Your task to perform on an android device: open app "DuckDuckGo Privacy Browser" (install if not already installed) and go to login screen Image 0: 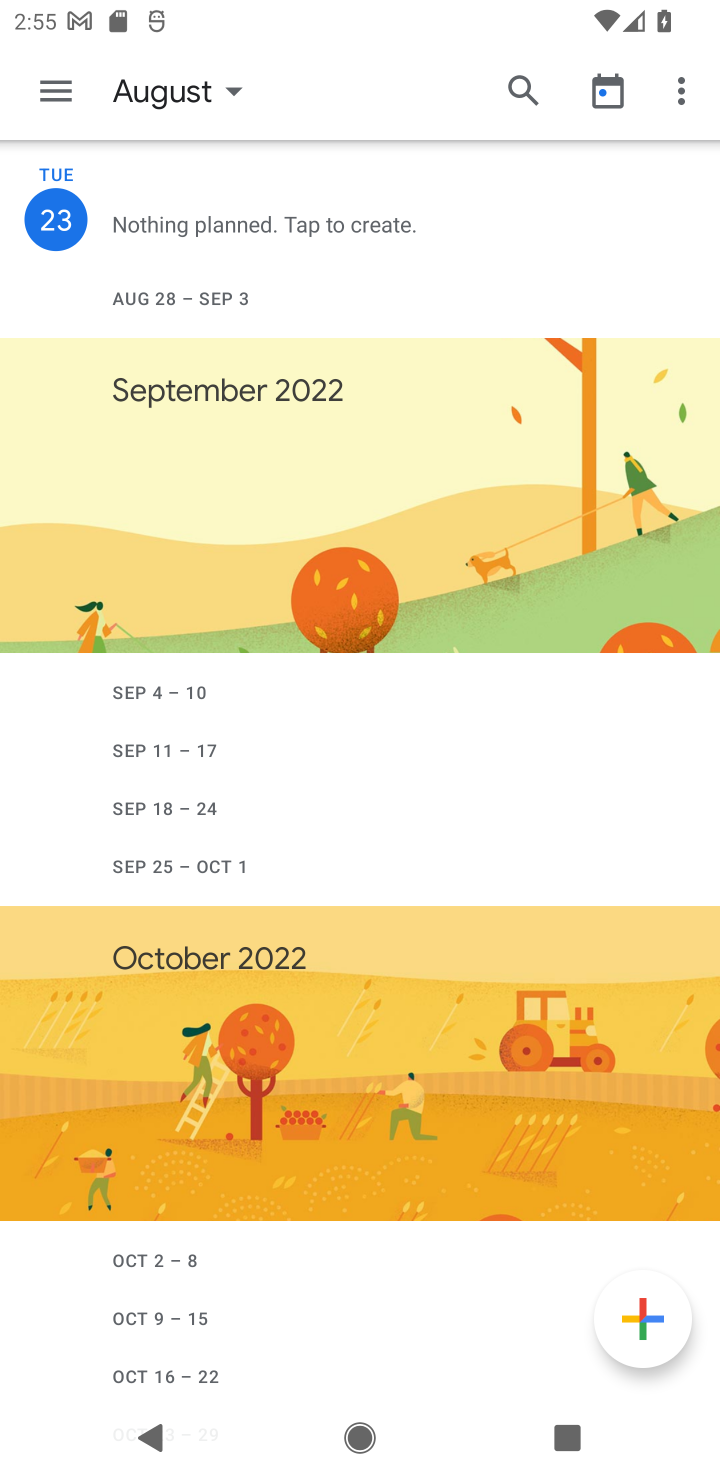
Step 0: press home button
Your task to perform on an android device: open app "DuckDuckGo Privacy Browser" (install if not already installed) and go to login screen Image 1: 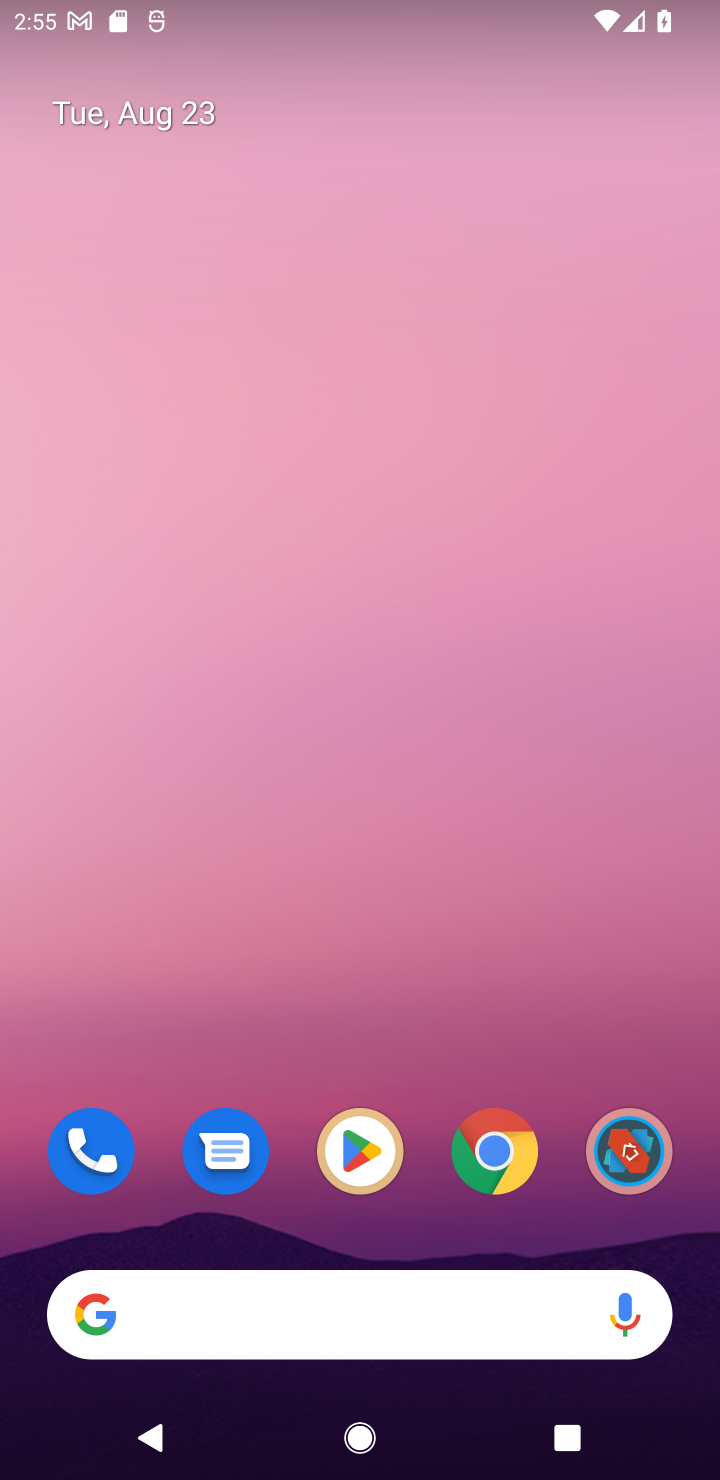
Step 1: click (366, 1147)
Your task to perform on an android device: open app "DuckDuckGo Privacy Browser" (install if not already installed) and go to login screen Image 2: 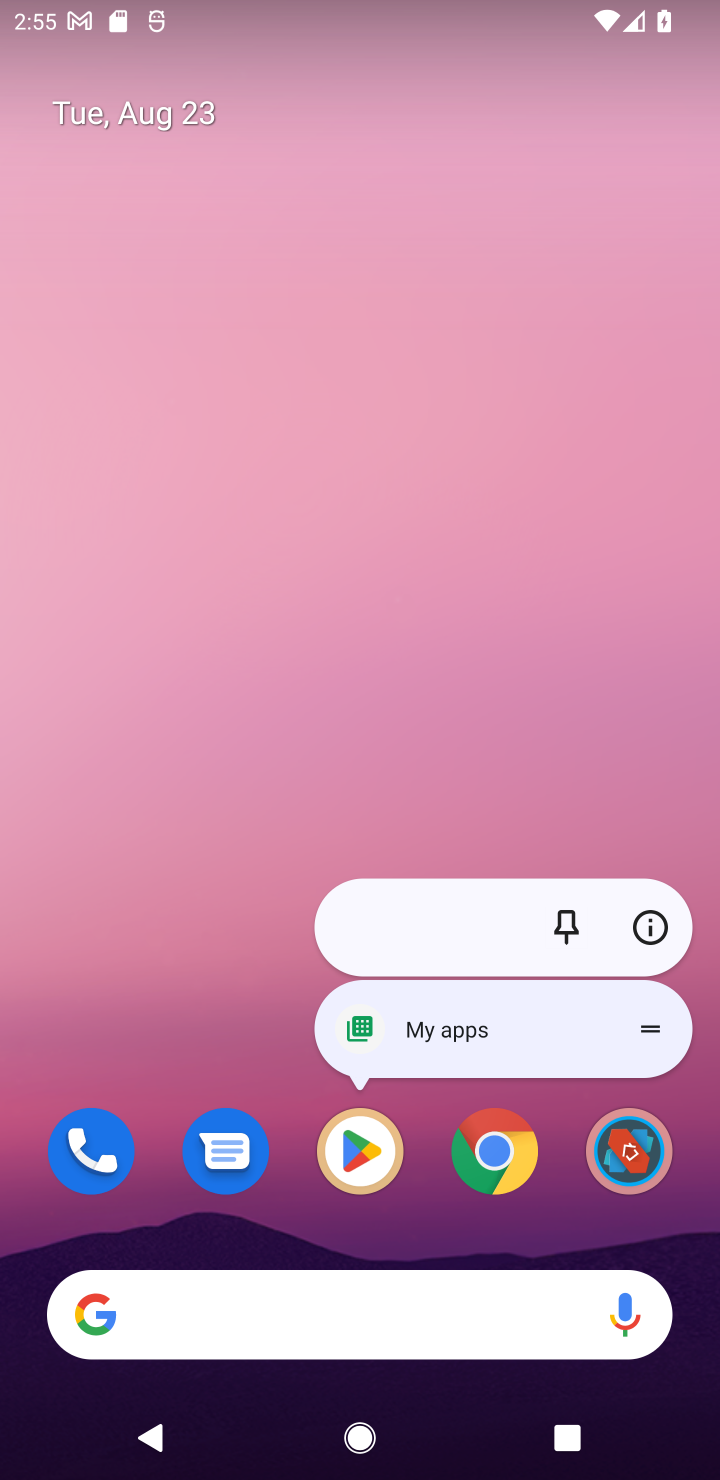
Step 2: click (366, 1152)
Your task to perform on an android device: open app "DuckDuckGo Privacy Browser" (install if not already installed) and go to login screen Image 3: 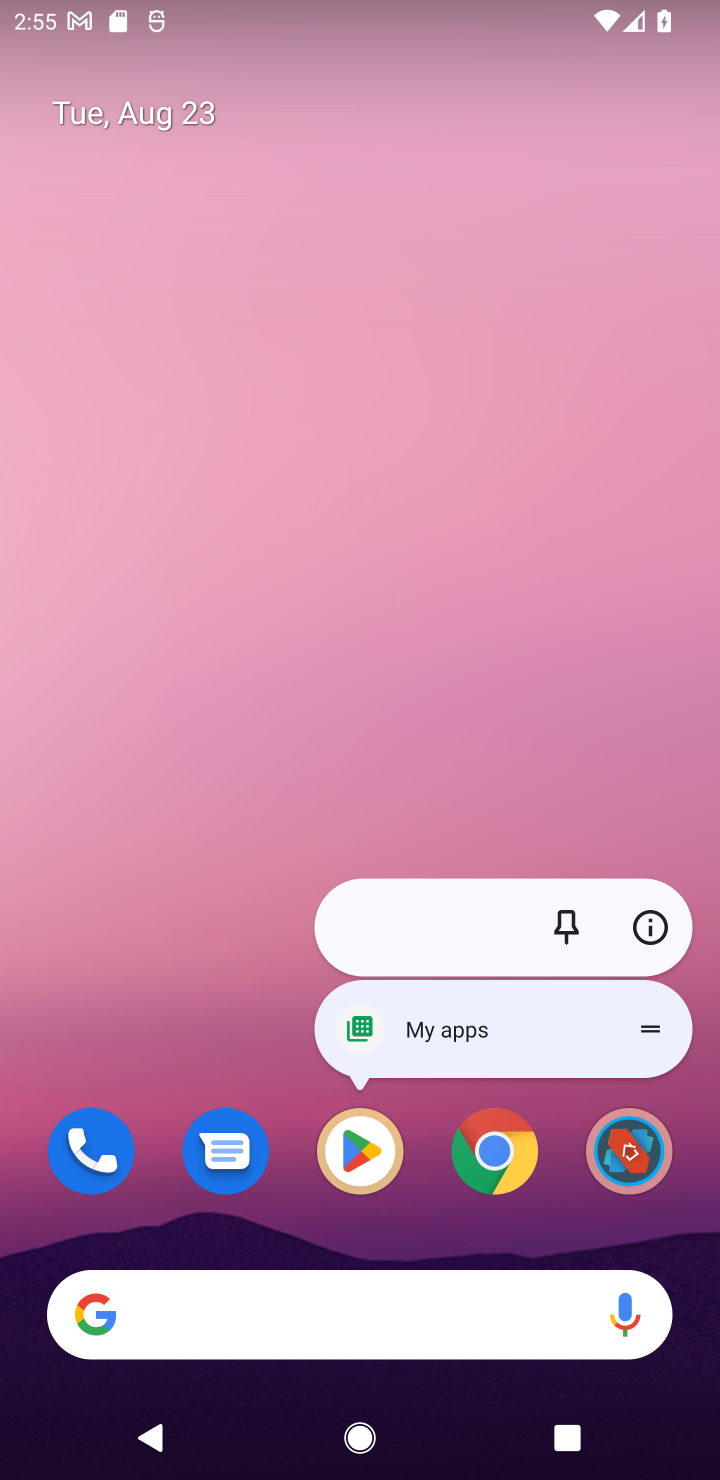
Step 3: click (366, 1152)
Your task to perform on an android device: open app "DuckDuckGo Privacy Browser" (install if not already installed) and go to login screen Image 4: 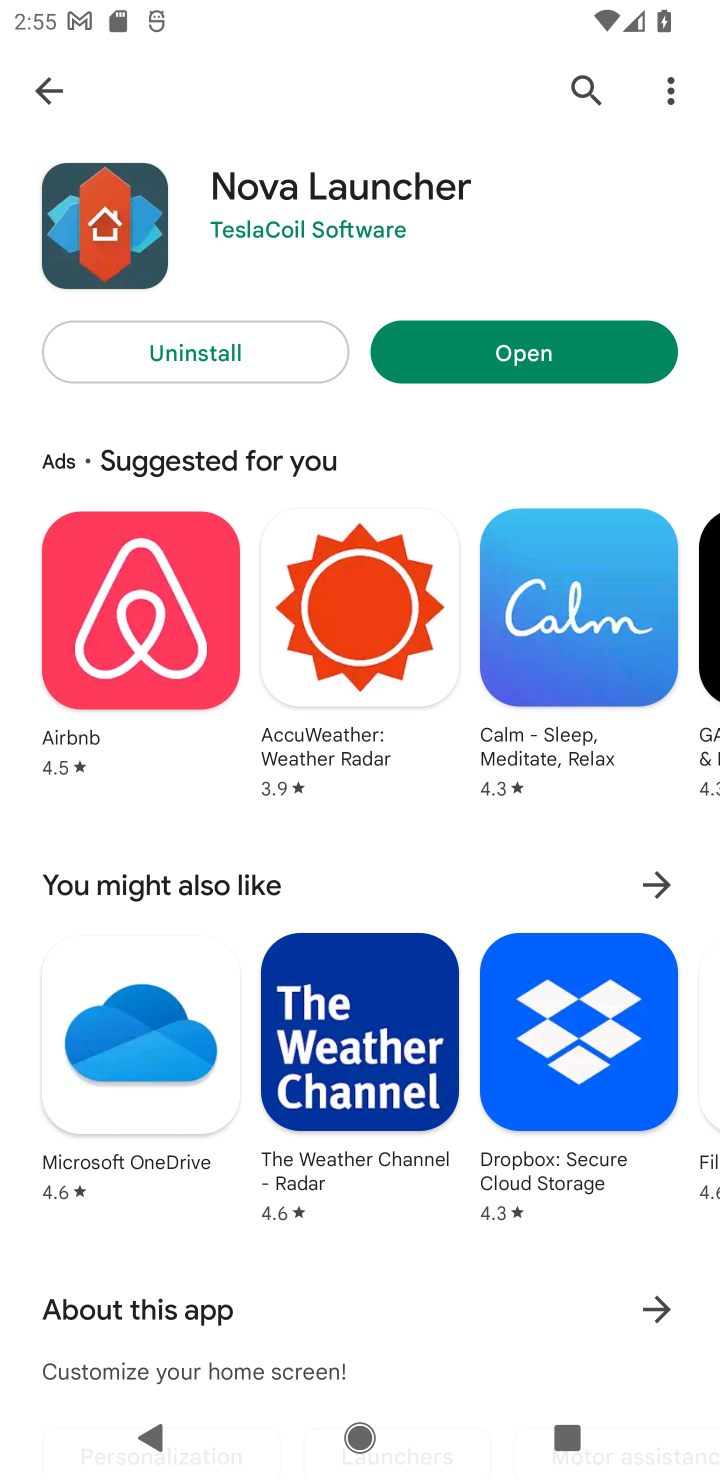
Step 4: click (584, 84)
Your task to perform on an android device: open app "DuckDuckGo Privacy Browser" (install if not already installed) and go to login screen Image 5: 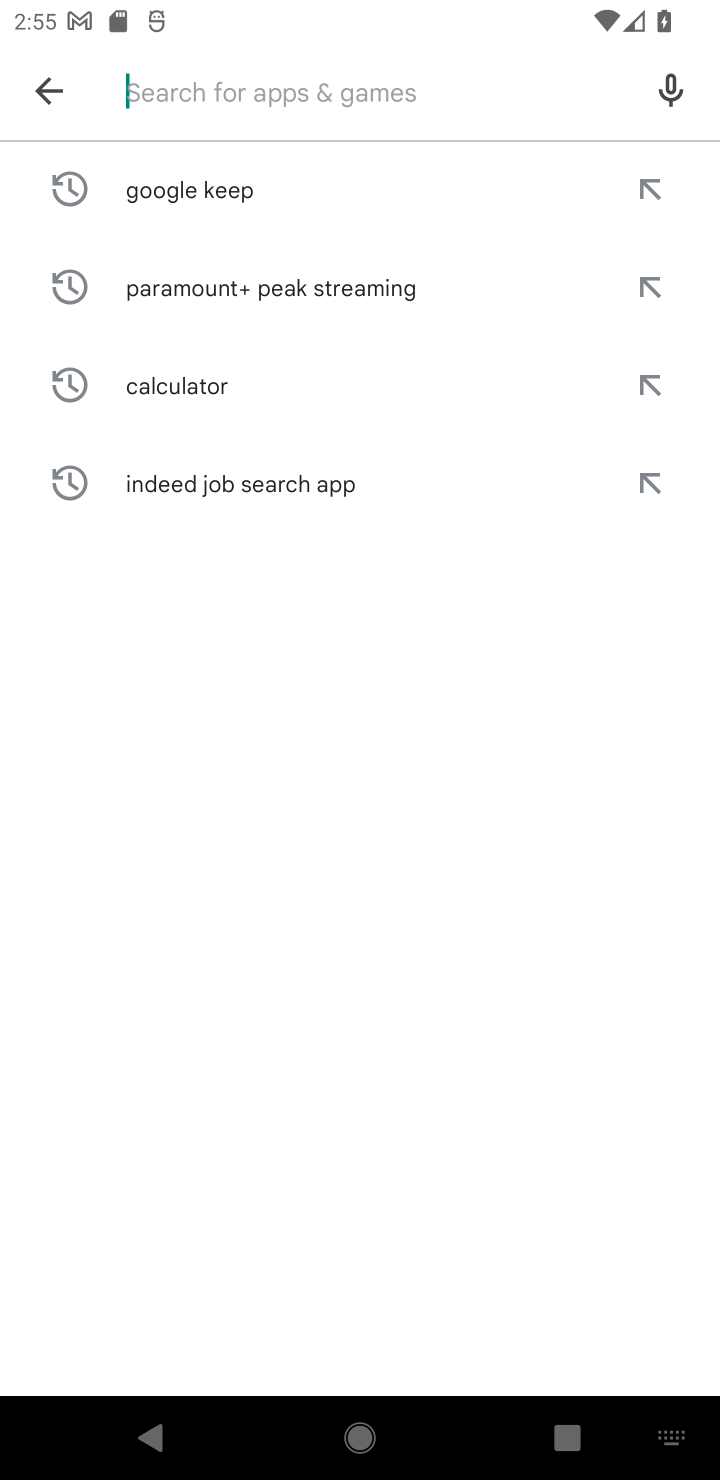
Step 5: type "DuckDuckGo Privacy Browser"
Your task to perform on an android device: open app "DuckDuckGo Privacy Browser" (install if not already installed) and go to login screen Image 6: 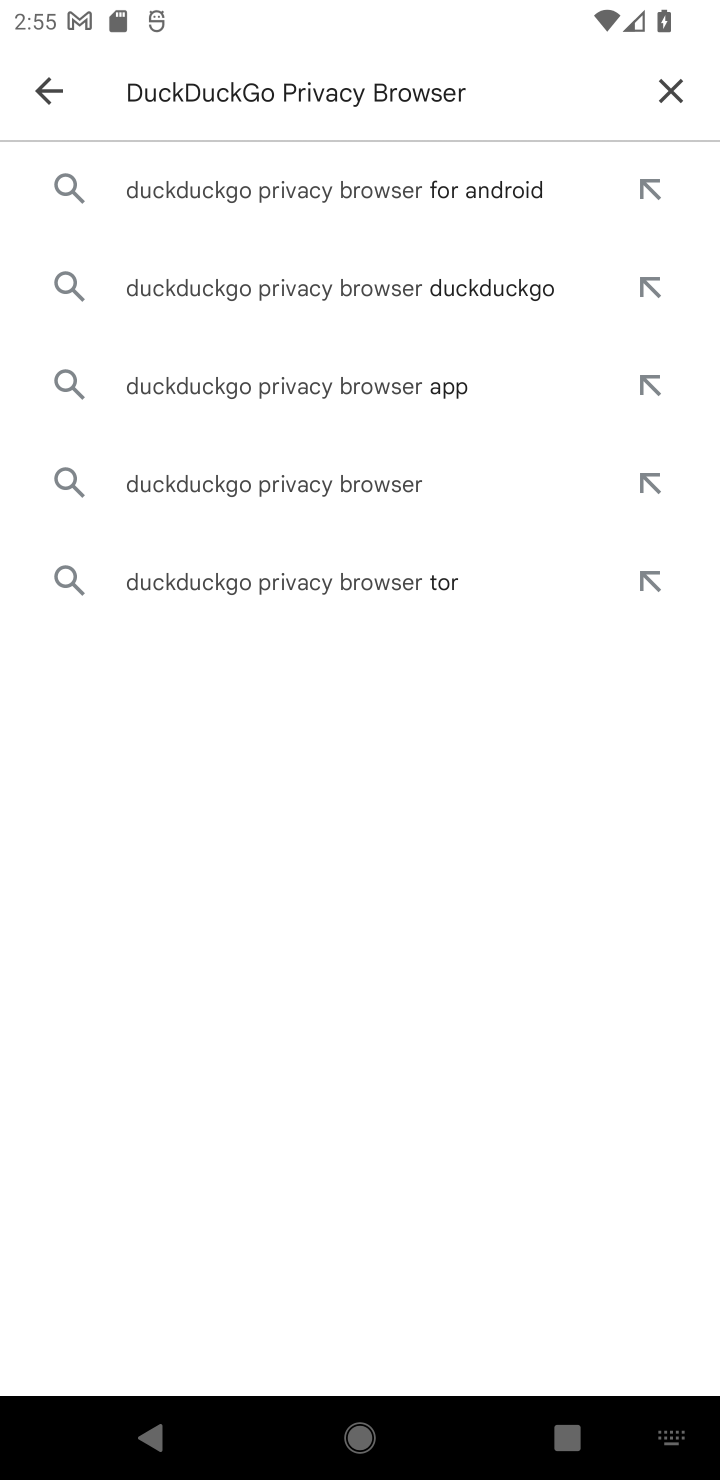
Step 6: click (395, 188)
Your task to perform on an android device: open app "DuckDuckGo Privacy Browser" (install if not already installed) and go to login screen Image 7: 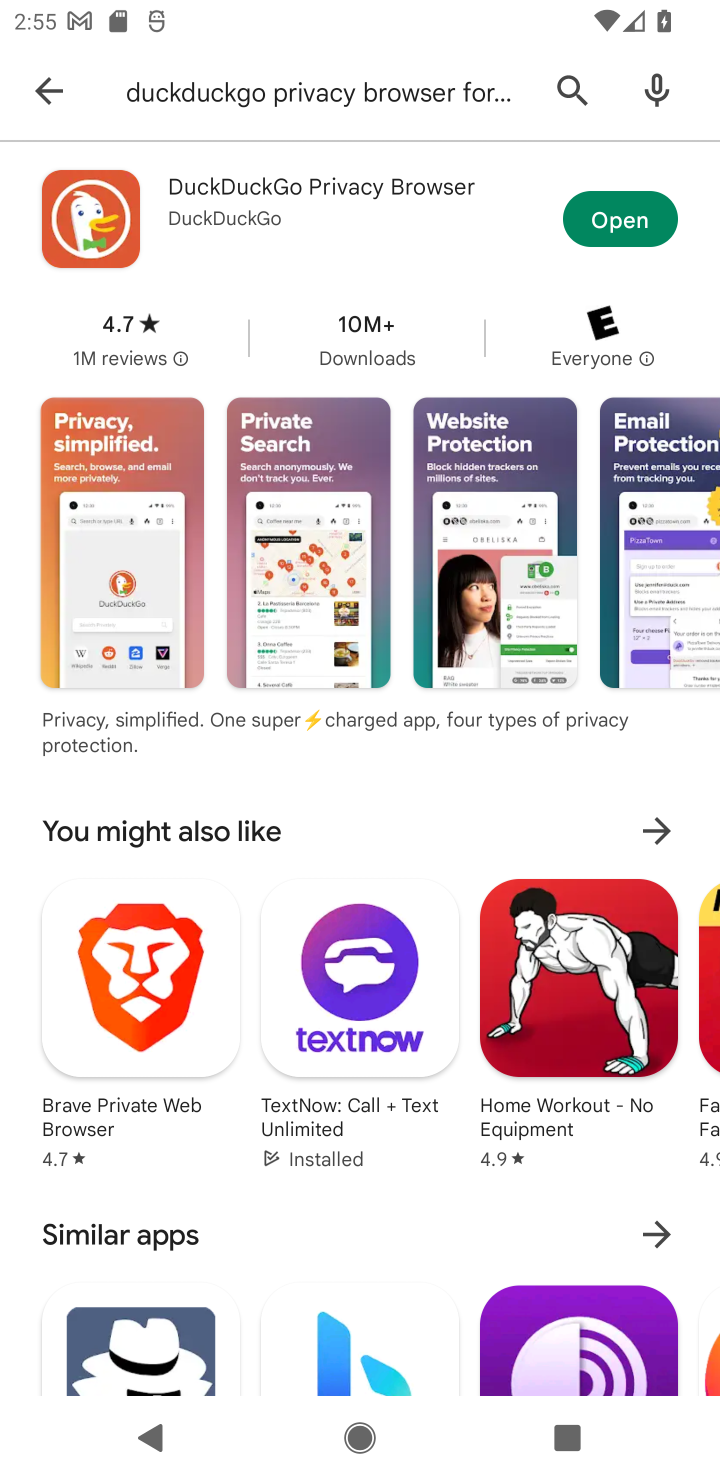
Step 7: click (588, 223)
Your task to perform on an android device: open app "DuckDuckGo Privacy Browser" (install if not already installed) and go to login screen Image 8: 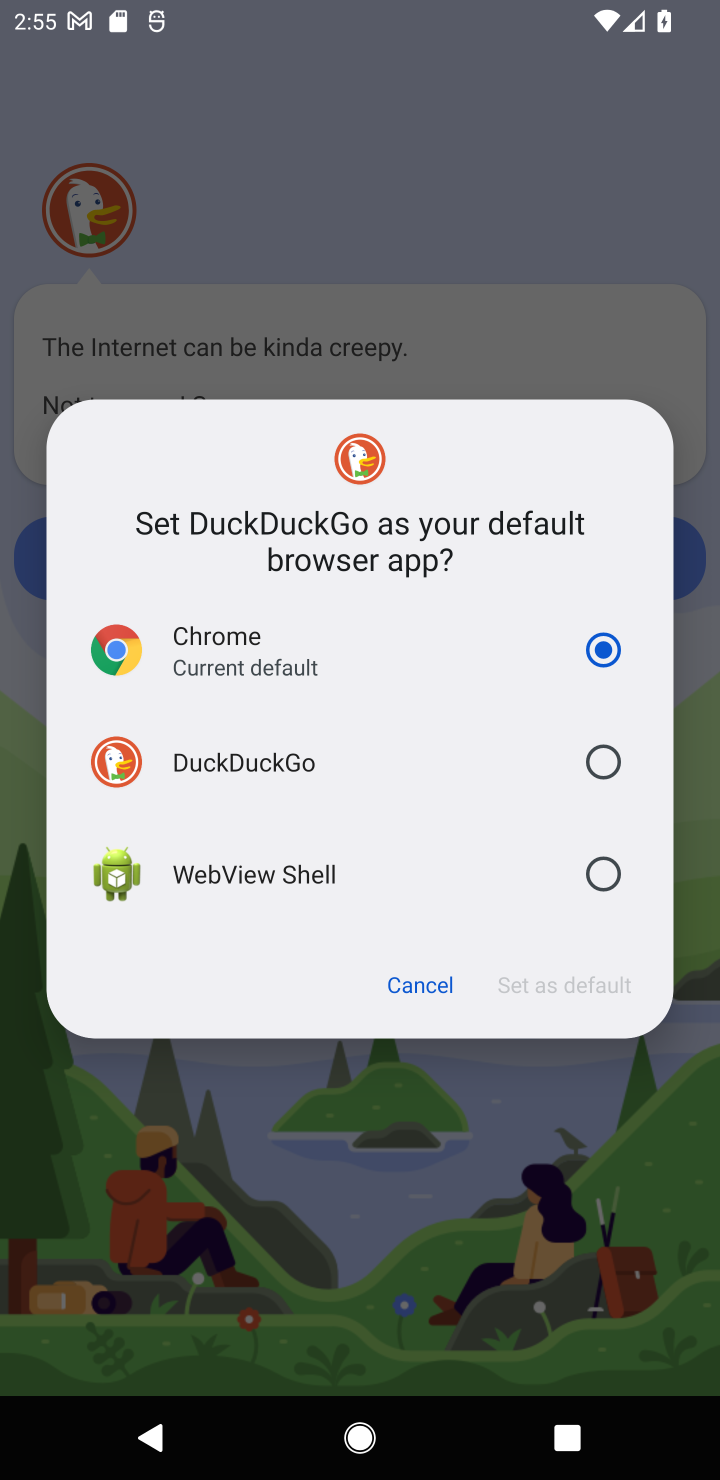
Step 8: task complete